Your task to perform on an android device: Go to Google Image 0: 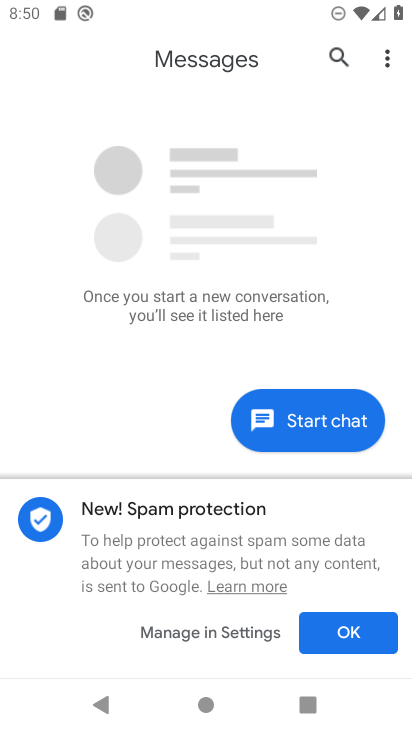
Step 0: press home button
Your task to perform on an android device: Go to Google Image 1: 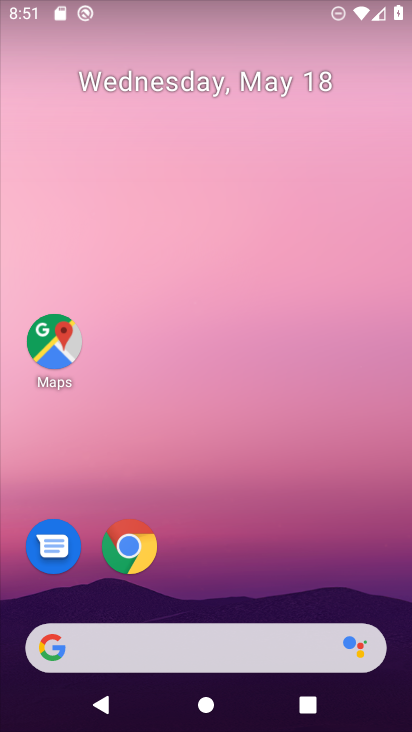
Step 1: drag from (235, 686) to (323, 181)
Your task to perform on an android device: Go to Google Image 2: 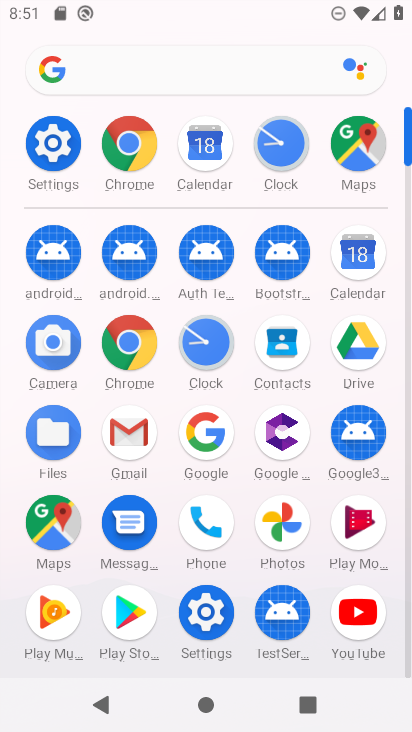
Step 2: click (50, 63)
Your task to perform on an android device: Go to Google Image 3: 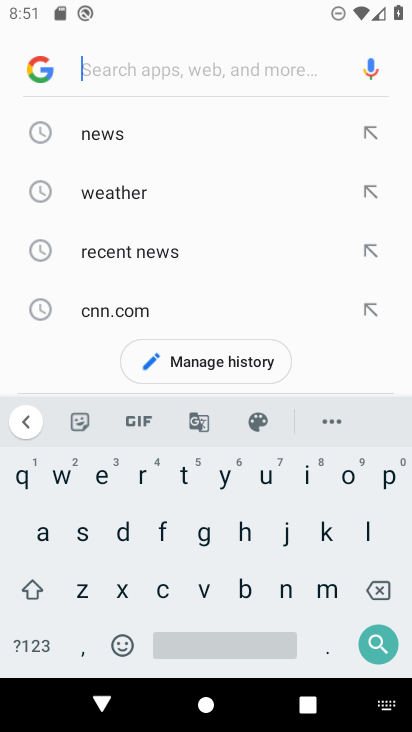
Step 3: click (25, 56)
Your task to perform on an android device: Go to Google Image 4: 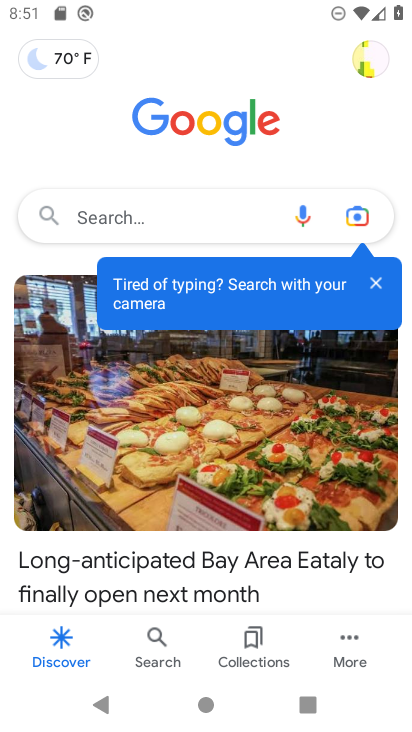
Step 4: task complete